Your task to perform on an android device: Open display settings Image 0: 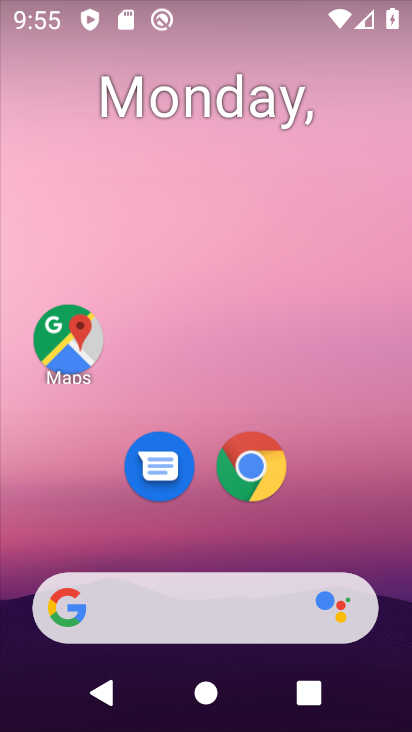
Step 0: drag from (208, 545) to (254, 157)
Your task to perform on an android device: Open display settings Image 1: 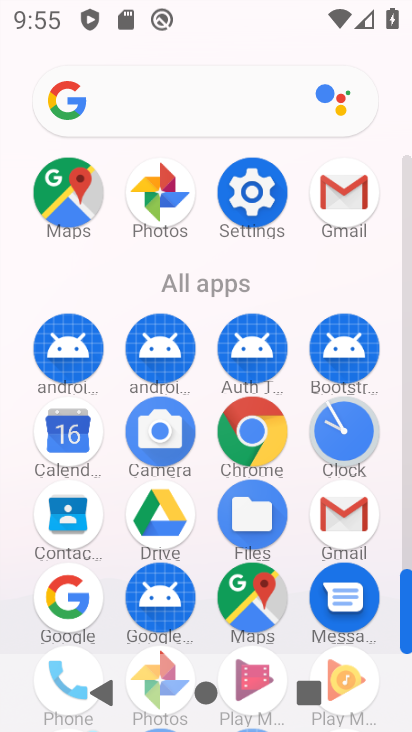
Step 1: click (251, 194)
Your task to perform on an android device: Open display settings Image 2: 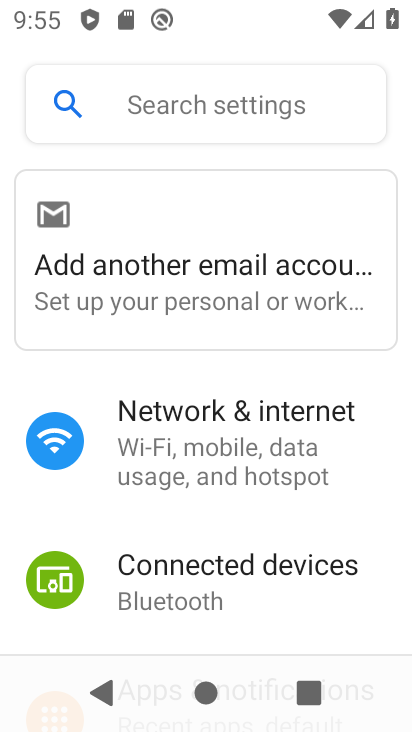
Step 2: drag from (223, 521) to (260, 203)
Your task to perform on an android device: Open display settings Image 3: 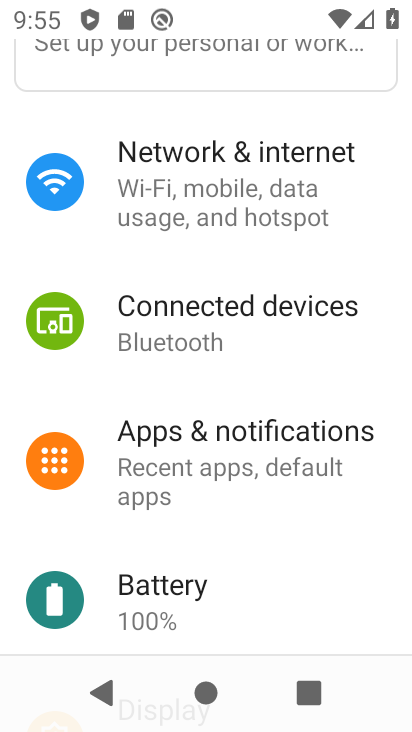
Step 3: drag from (228, 522) to (250, 257)
Your task to perform on an android device: Open display settings Image 4: 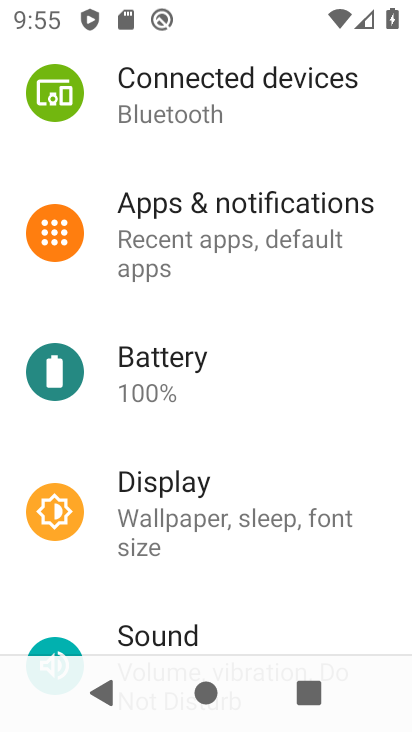
Step 4: click (180, 498)
Your task to perform on an android device: Open display settings Image 5: 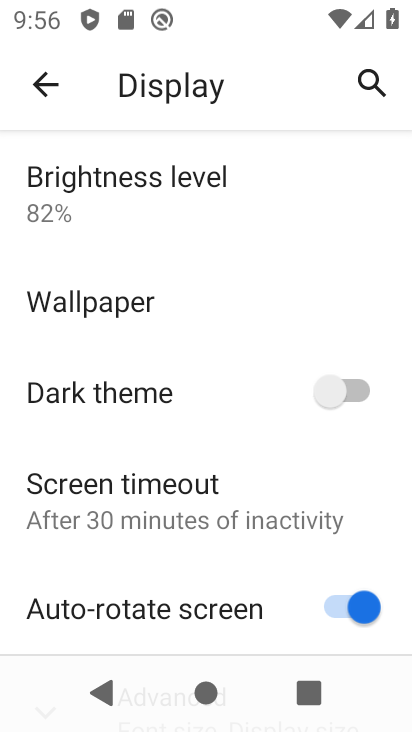
Step 5: task complete